Your task to perform on an android device: Go to CNN.com Image 0: 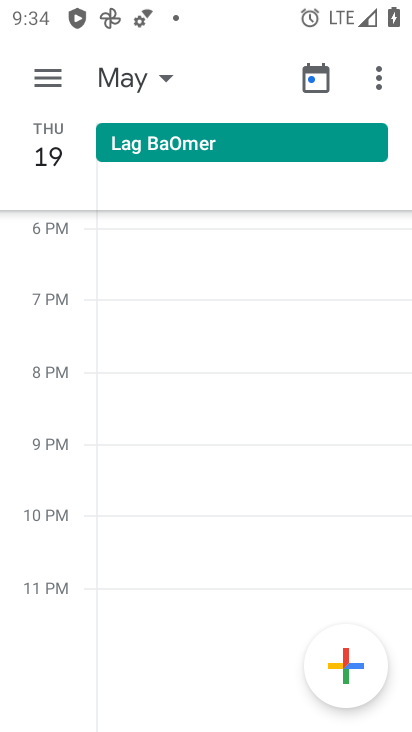
Step 0: press back button
Your task to perform on an android device: Go to CNN.com Image 1: 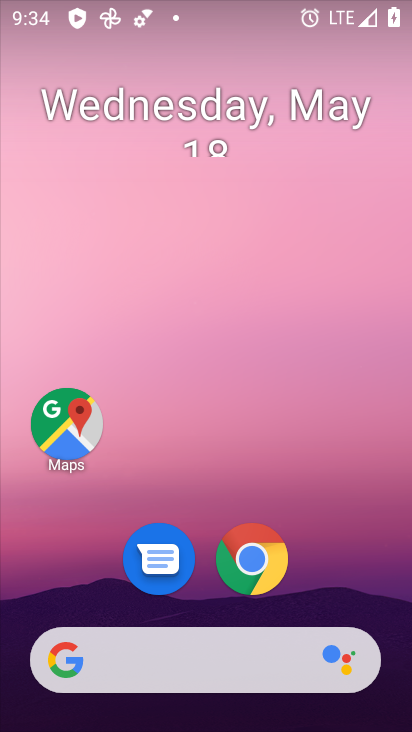
Step 1: drag from (344, 575) to (259, 11)
Your task to perform on an android device: Go to CNN.com Image 2: 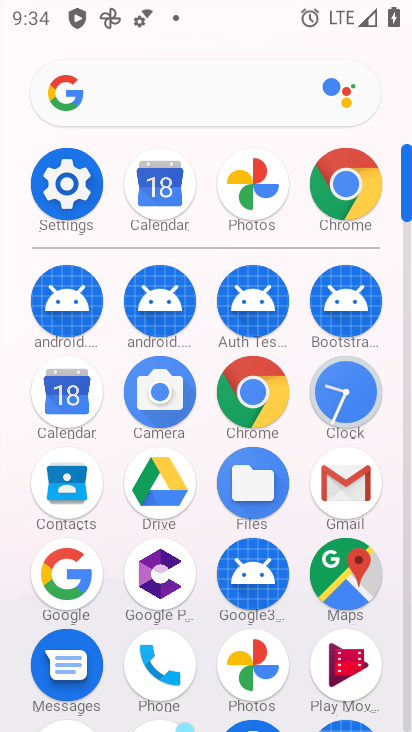
Step 2: click (347, 185)
Your task to perform on an android device: Go to CNN.com Image 3: 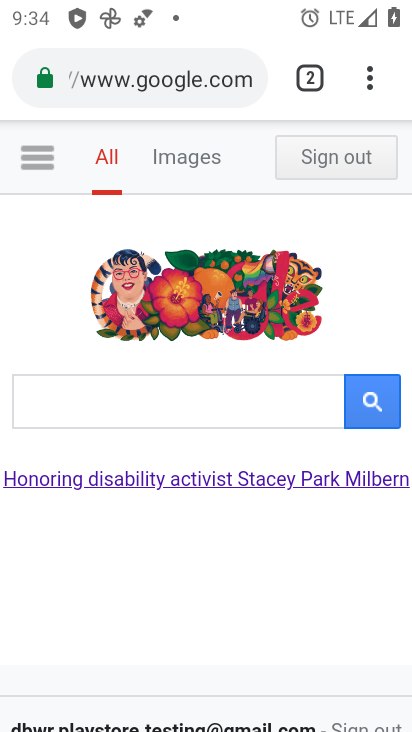
Step 3: click (173, 60)
Your task to perform on an android device: Go to CNN.com Image 4: 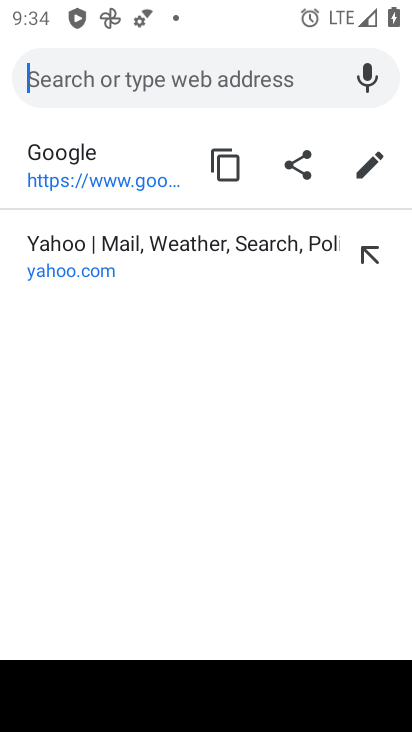
Step 4: type "CNN.com"
Your task to perform on an android device: Go to CNN.com Image 5: 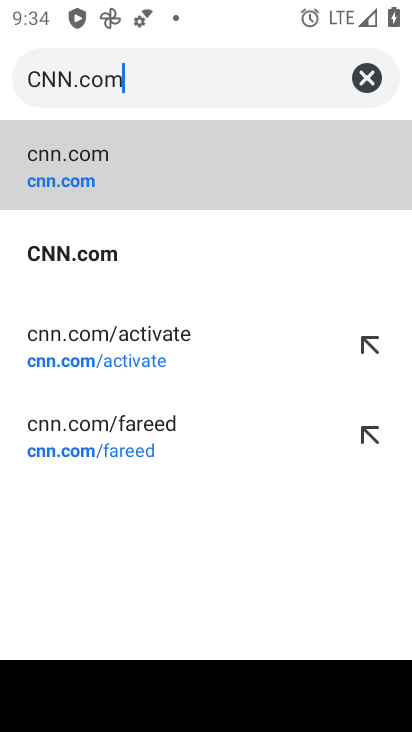
Step 5: type ""
Your task to perform on an android device: Go to CNN.com Image 6: 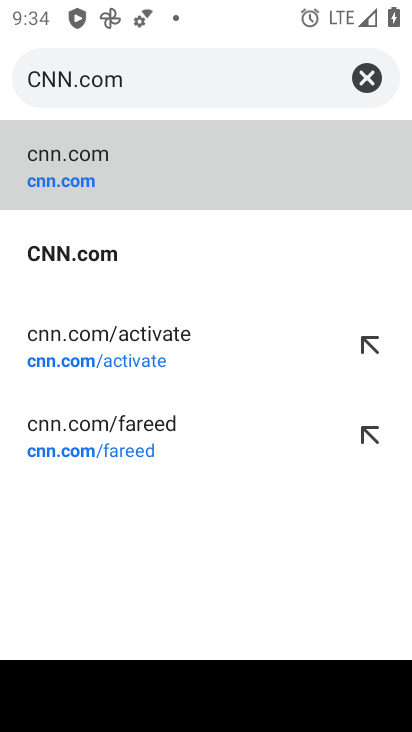
Step 6: click (124, 179)
Your task to perform on an android device: Go to CNN.com Image 7: 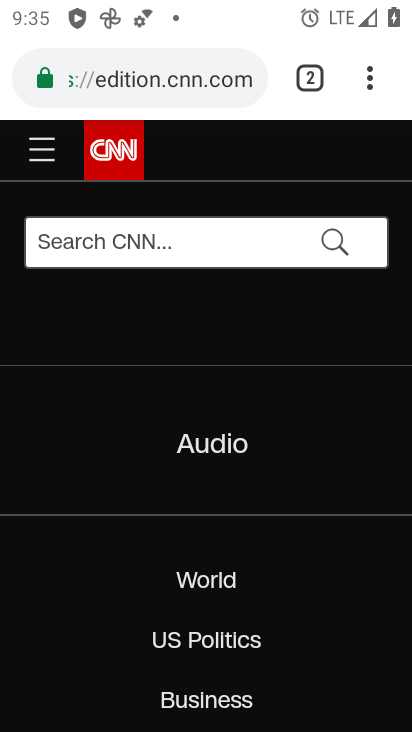
Step 7: task complete